Your task to perform on an android device: Go to Reddit.com Image 0: 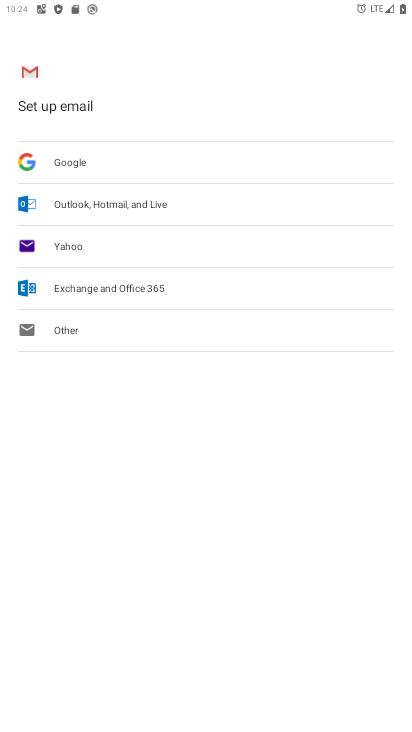
Step 0: press home button
Your task to perform on an android device: Go to Reddit.com Image 1: 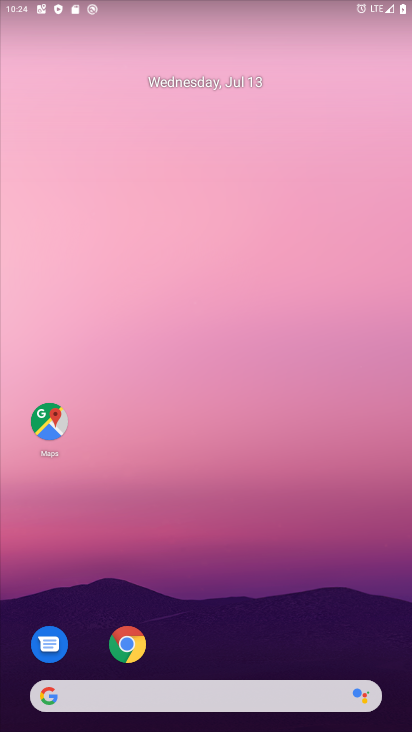
Step 1: drag from (222, 729) to (220, 229)
Your task to perform on an android device: Go to Reddit.com Image 2: 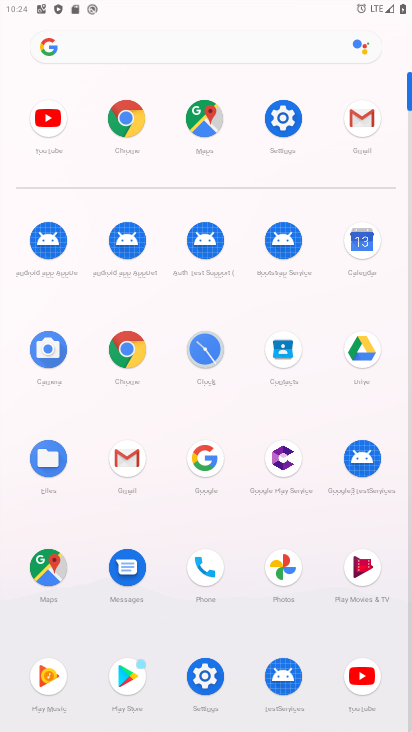
Step 2: click (122, 122)
Your task to perform on an android device: Go to Reddit.com Image 3: 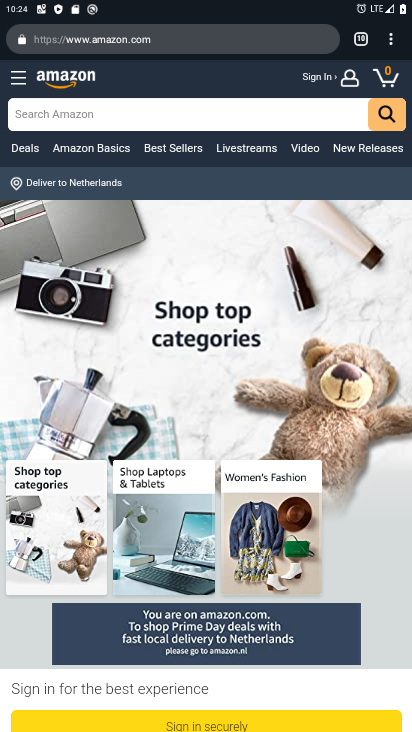
Step 3: click (392, 46)
Your task to perform on an android device: Go to Reddit.com Image 4: 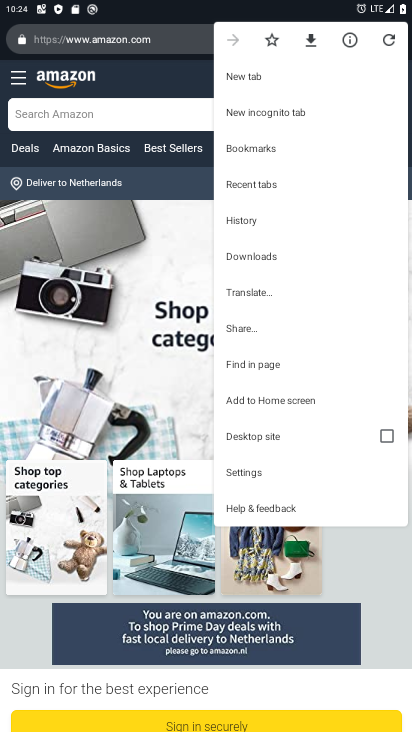
Step 4: click (238, 78)
Your task to perform on an android device: Go to Reddit.com Image 5: 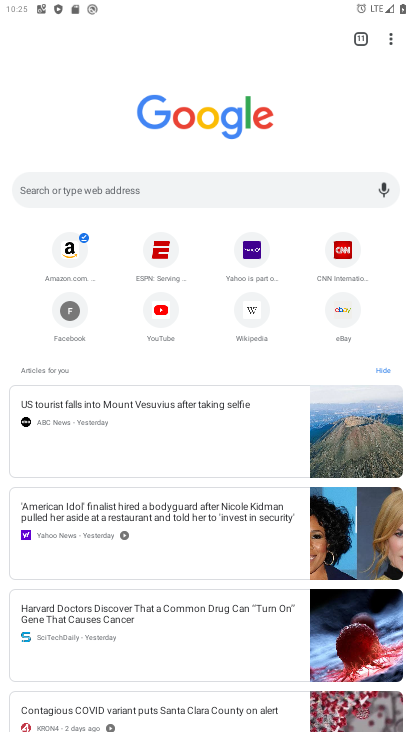
Step 5: click (210, 189)
Your task to perform on an android device: Go to Reddit.com Image 6: 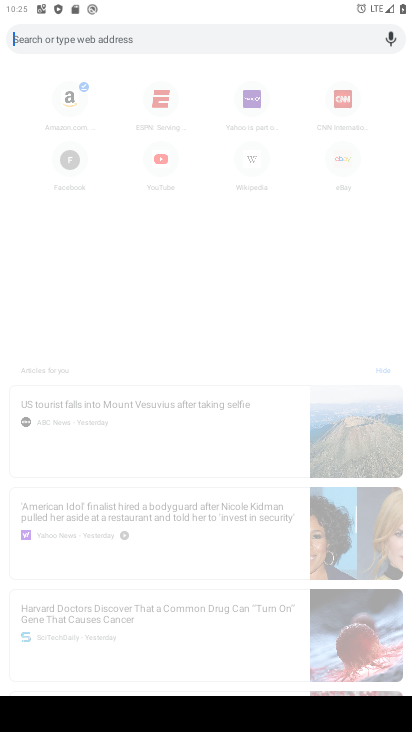
Step 6: type "Reddit"
Your task to perform on an android device: Go to Reddit.com Image 7: 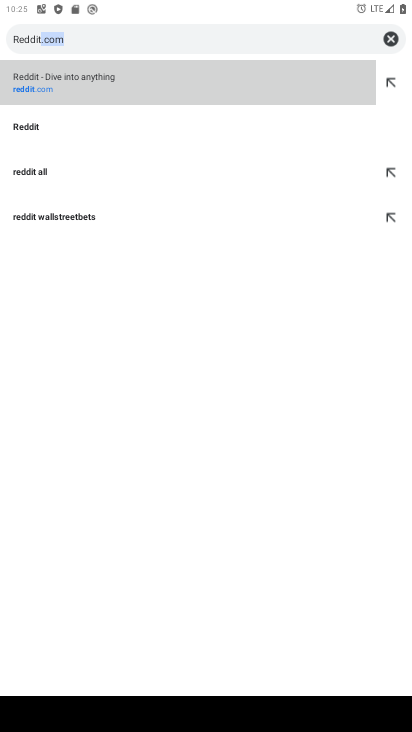
Step 7: click (32, 69)
Your task to perform on an android device: Go to Reddit.com Image 8: 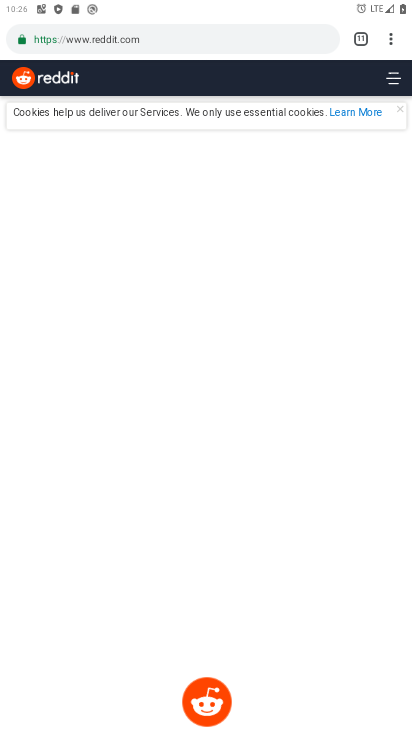
Step 8: task complete